Your task to perform on an android device: turn off location Image 0: 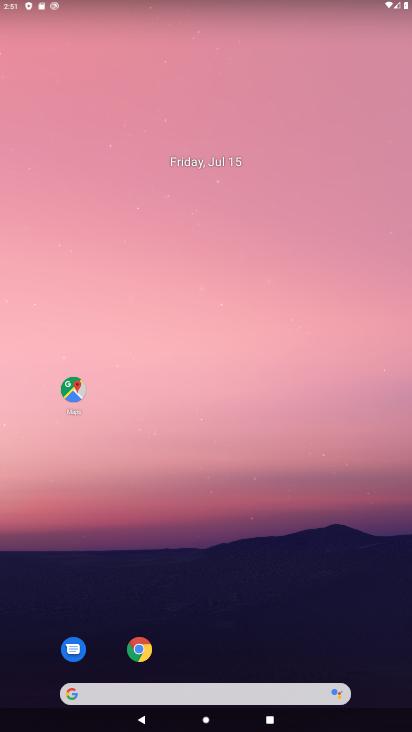
Step 0: click (302, 175)
Your task to perform on an android device: turn off location Image 1: 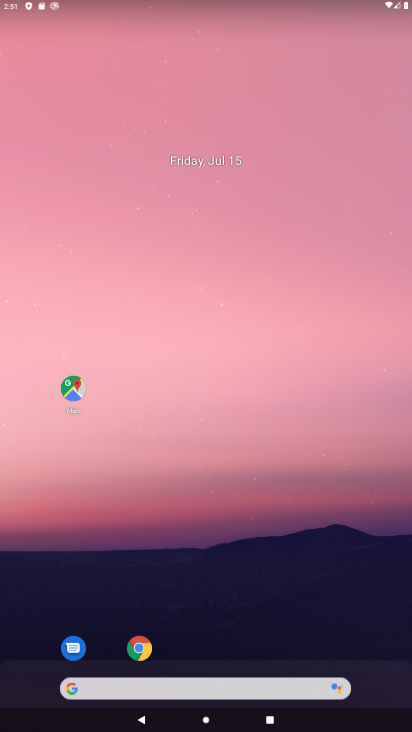
Step 1: drag from (296, 514) to (296, 122)
Your task to perform on an android device: turn off location Image 2: 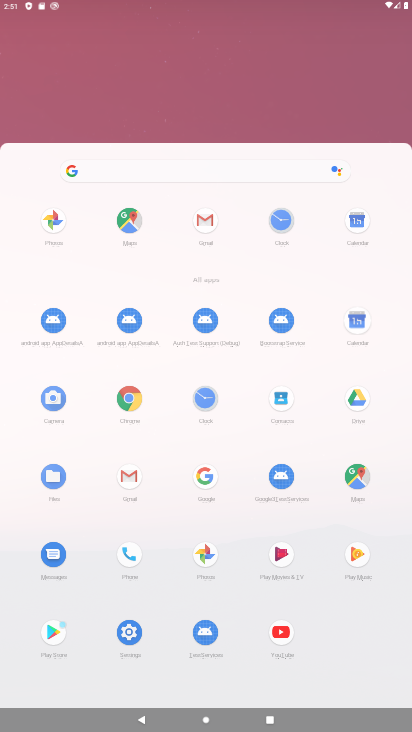
Step 2: drag from (315, 463) to (324, 35)
Your task to perform on an android device: turn off location Image 3: 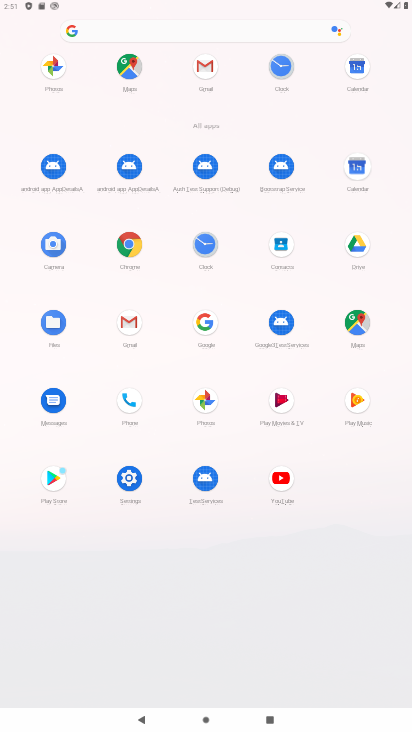
Step 3: drag from (299, 73) to (309, 10)
Your task to perform on an android device: turn off location Image 4: 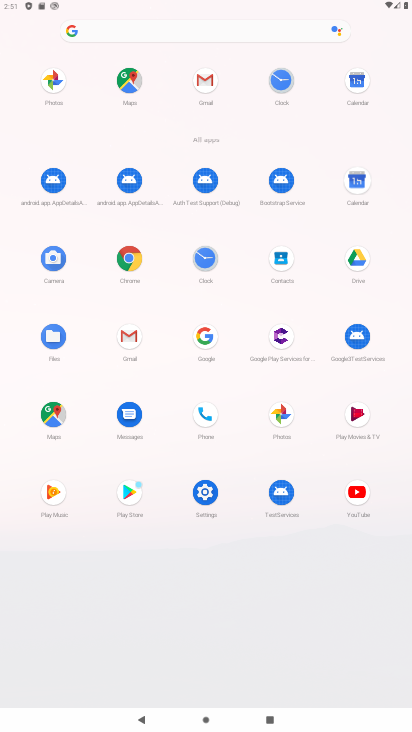
Step 4: click (130, 491)
Your task to perform on an android device: turn off location Image 5: 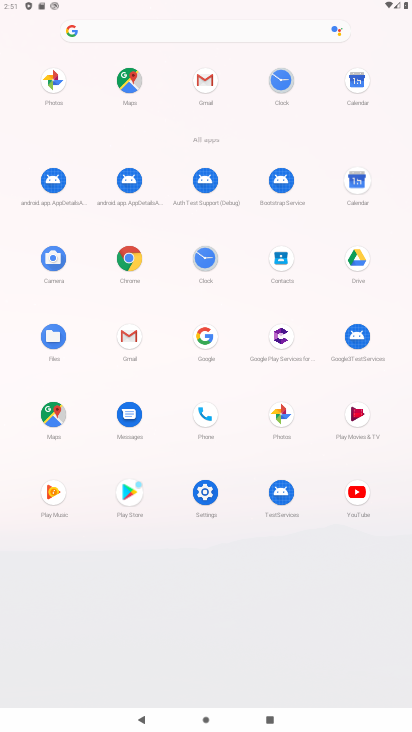
Step 5: click (133, 490)
Your task to perform on an android device: turn off location Image 6: 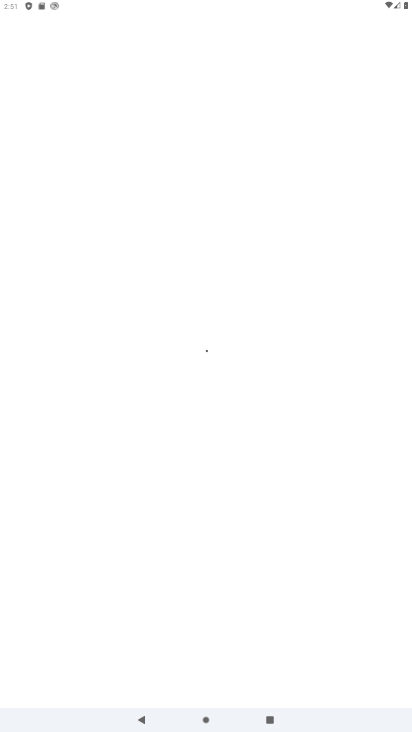
Step 6: press back button
Your task to perform on an android device: turn off location Image 7: 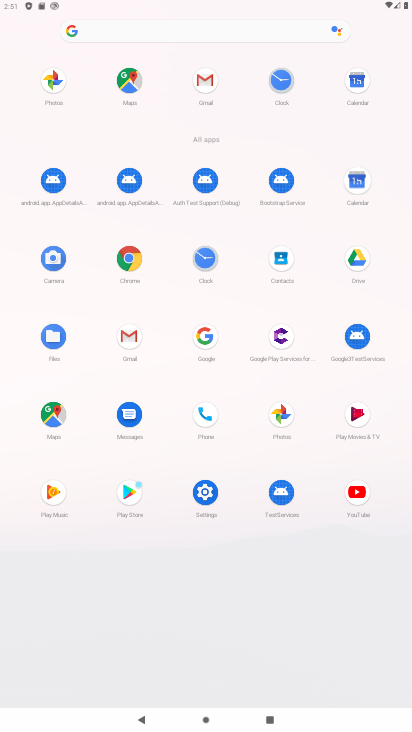
Step 7: press home button
Your task to perform on an android device: turn off location Image 8: 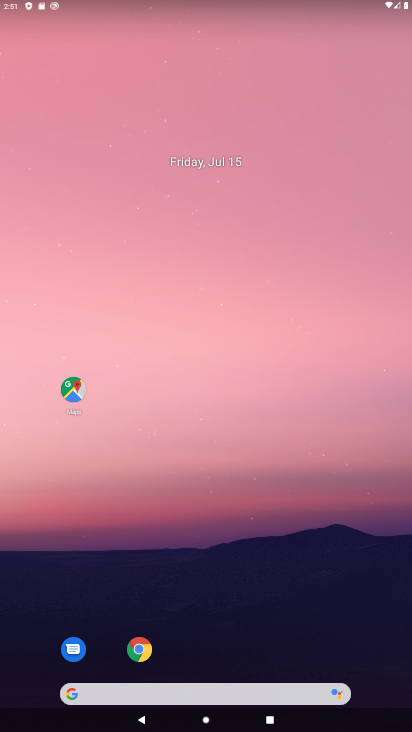
Step 8: drag from (288, 606) to (253, 264)
Your task to perform on an android device: turn off location Image 9: 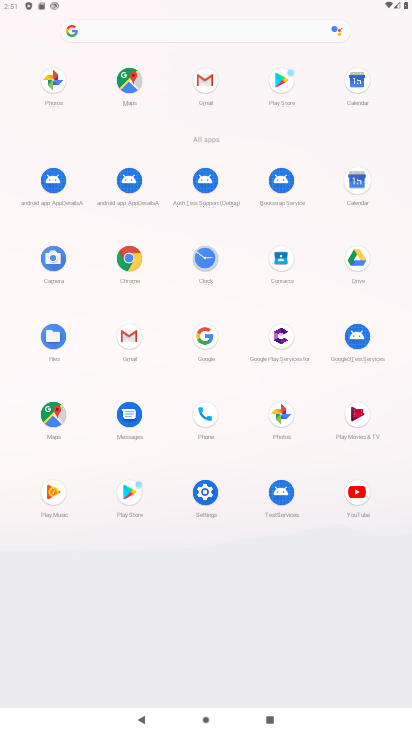
Step 9: click (210, 498)
Your task to perform on an android device: turn off location Image 10: 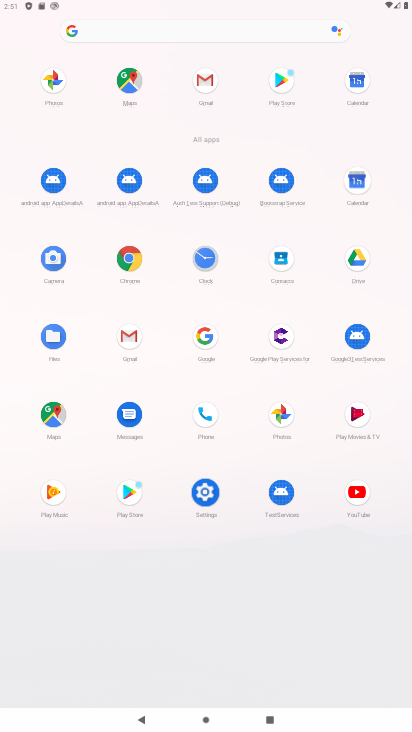
Step 10: click (214, 494)
Your task to perform on an android device: turn off location Image 11: 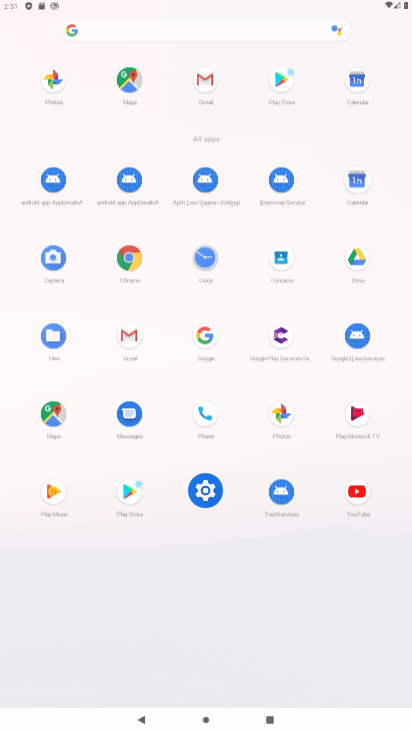
Step 11: click (214, 494)
Your task to perform on an android device: turn off location Image 12: 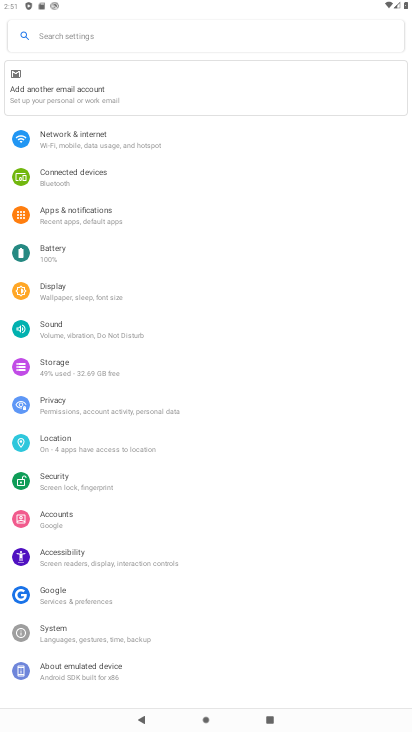
Step 12: click (67, 432)
Your task to perform on an android device: turn off location Image 13: 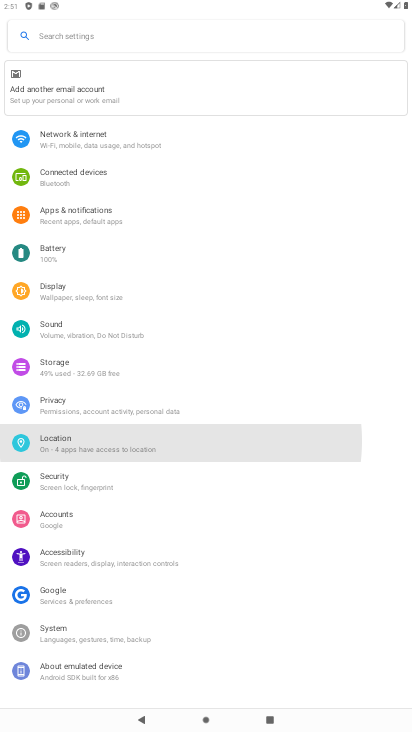
Step 13: click (72, 445)
Your task to perform on an android device: turn off location Image 14: 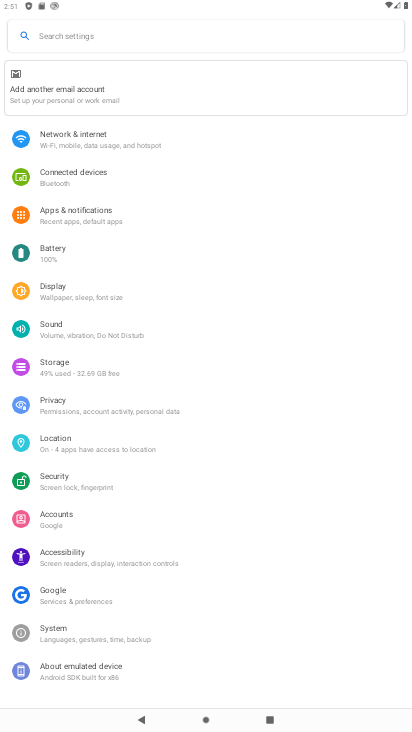
Step 14: click (76, 446)
Your task to perform on an android device: turn off location Image 15: 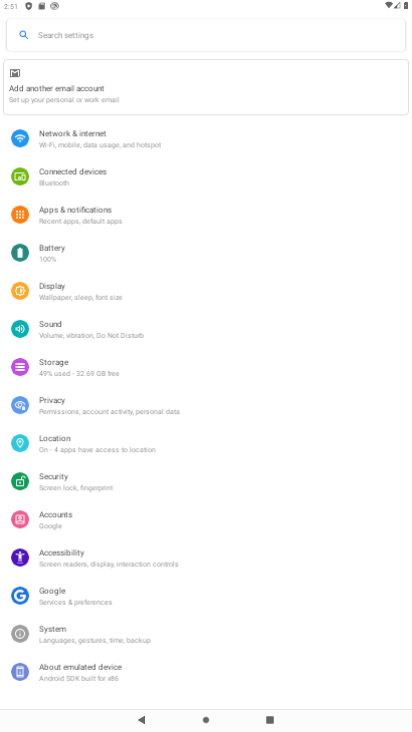
Step 15: click (78, 447)
Your task to perform on an android device: turn off location Image 16: 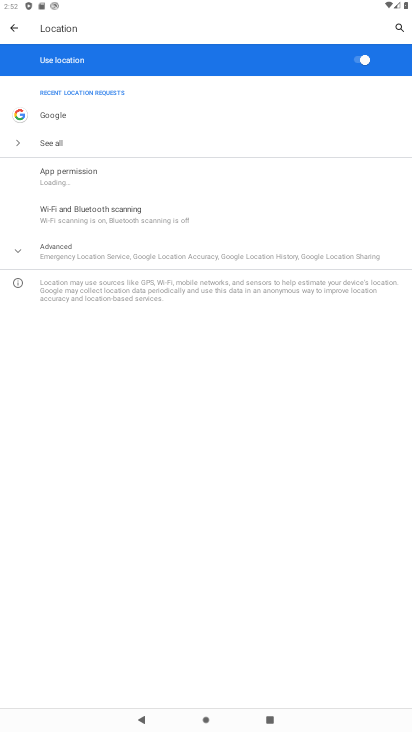
Step 16: click (364, 54)
Your task to perform on an android device: turn off location Image 17: 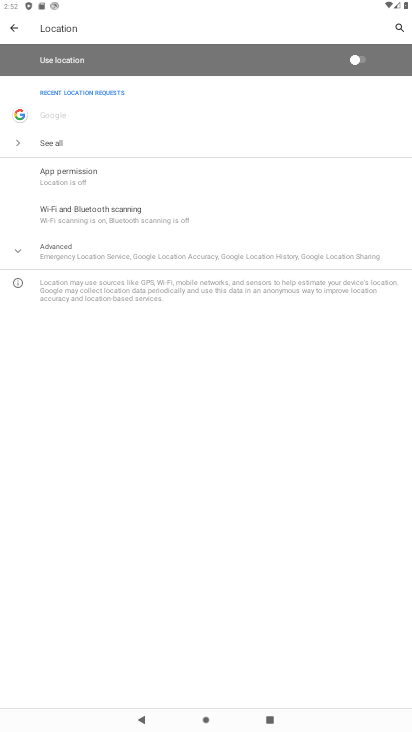
Step 17: task complete